Your task to perform on an android device: Search for the best rated coffee table on Target. Image 0: 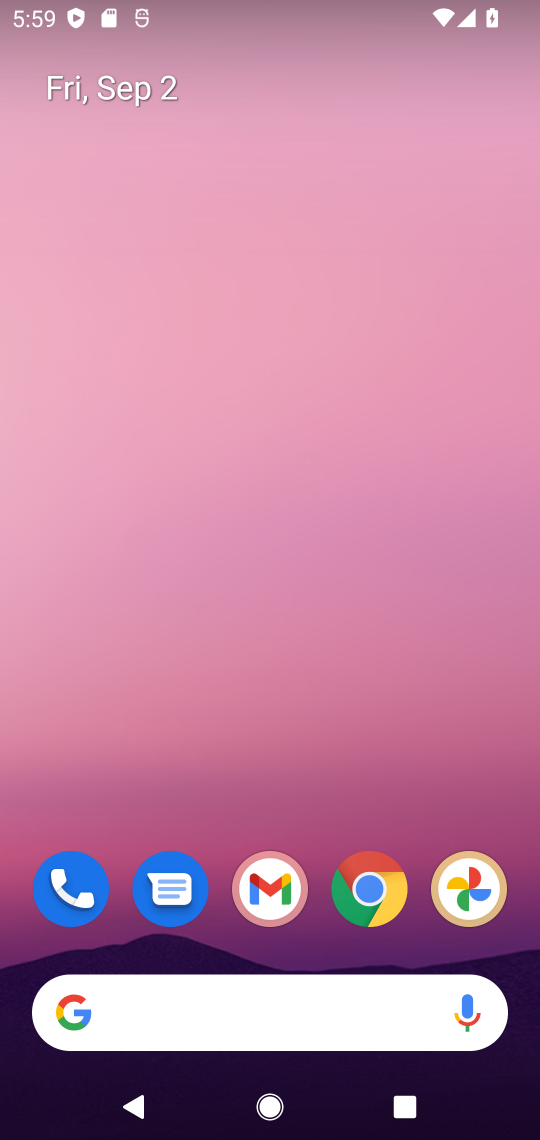
Step 0: click (298, 995)
Your task to perform on an android device: Search for the best rated coffee table on Target. Image 1: 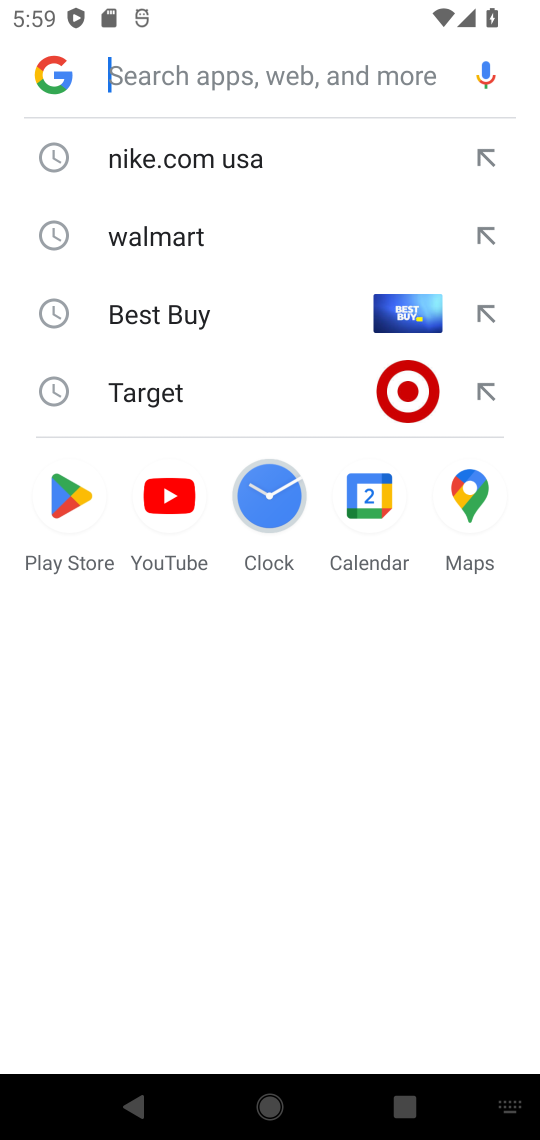
Step 1: click (346, 404)
Your task to perform on an android device: Search for the best rated coffee table on Target. Image 2: 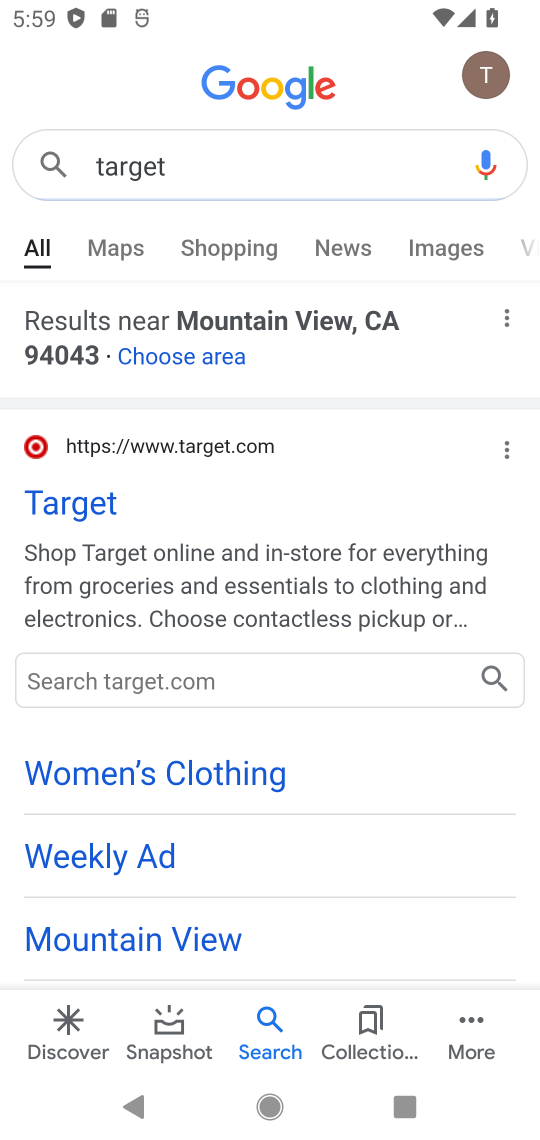
Step 2: click (65, 494)
Your task to perform on an android device: Search for the best rated coffee table on Target. Image 3: 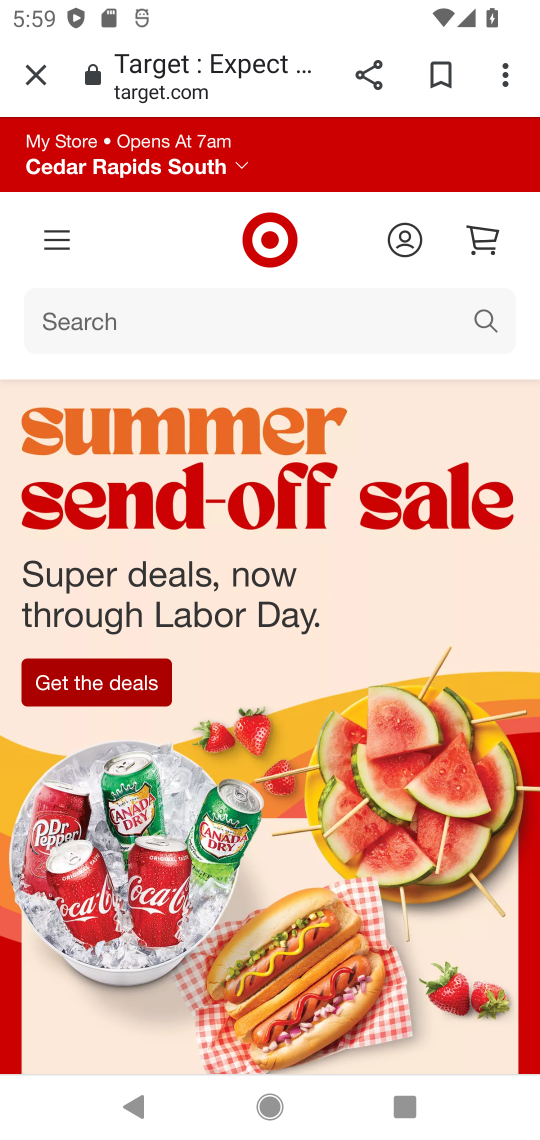
Step 3: click (180, 327)
Your task to perform on an android device: Search for the best rated coffee table on Target. Image 4: 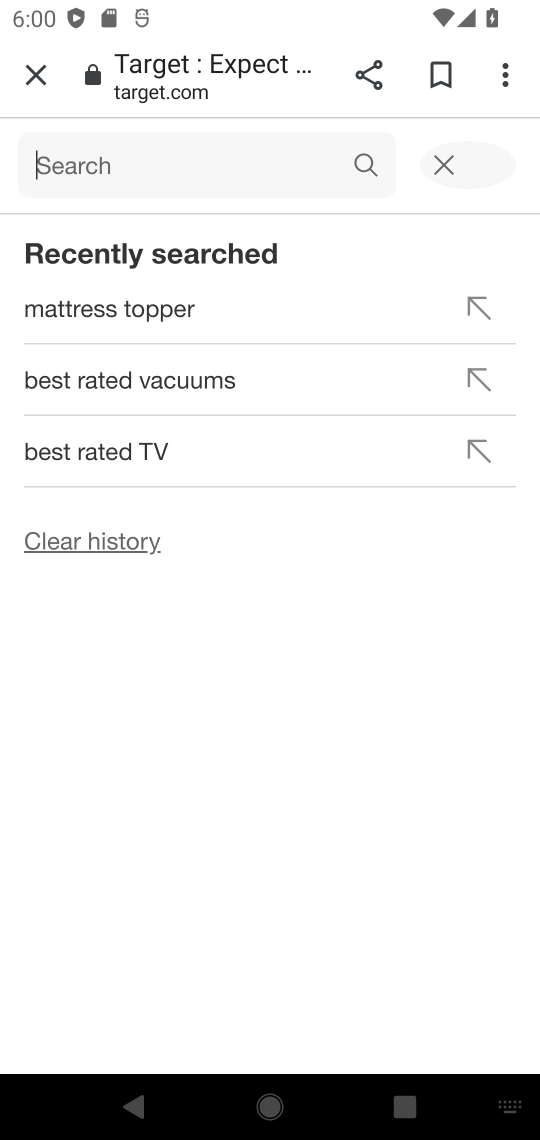
Step 4: type "coffee table"
Your task to perform on an android device: Search for the best rated coffee table on Target. Image 5: 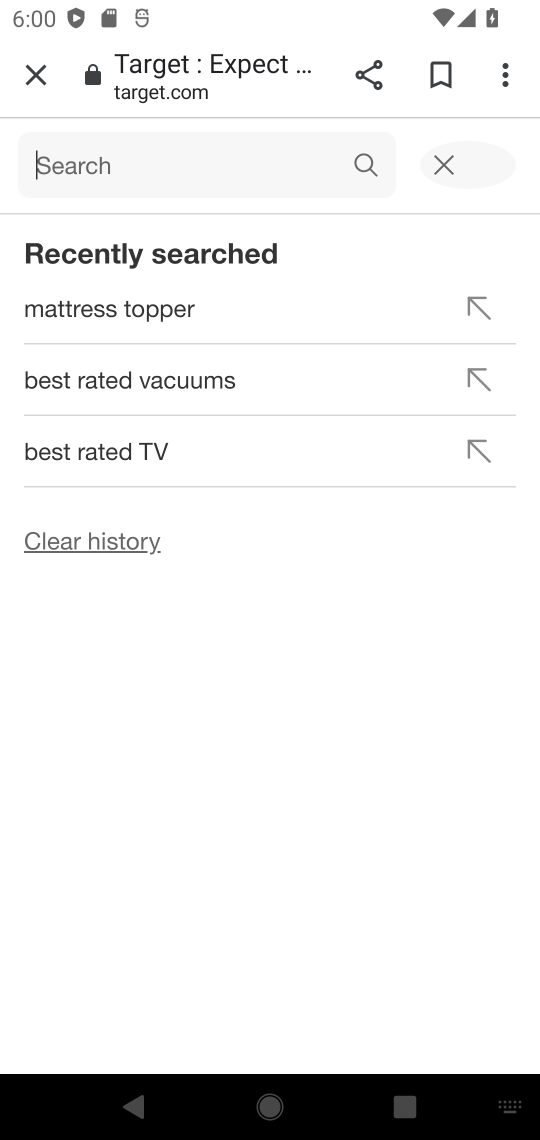
Step 5: type ""
Your task to perform on an android device: Search for the best rated coffee table on Target. Image 6: 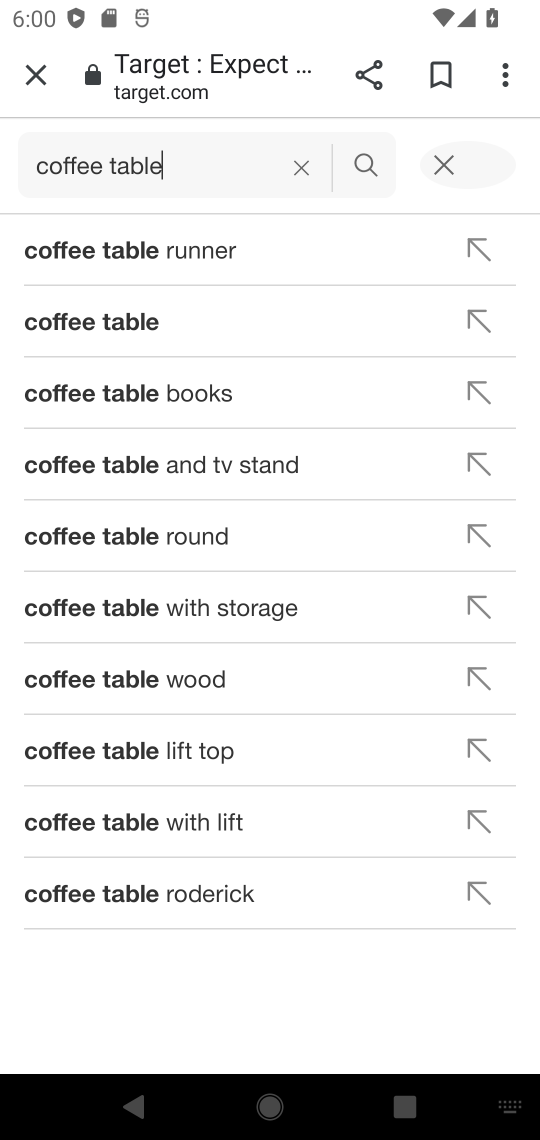
Step 6: click (216, 325)
Your task to perform on an android device: Search for the best rated coffee table on Target. Image 7: 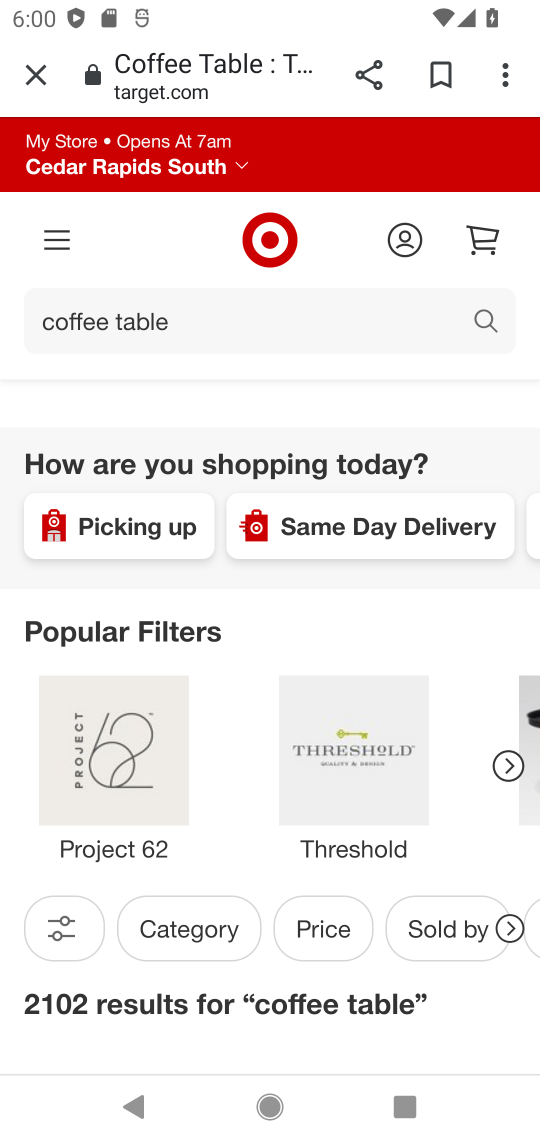
Step 7: task complete